Your task to perform on an android device: turn off improve location accuracy Image 0: 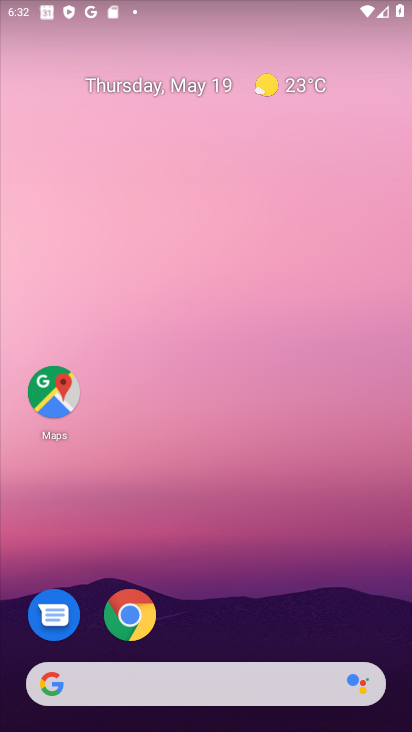
Step 0: drag from (354, 614) to (316, 5)
Your task to perform on an android device: turn off improve location accuracy Image 1: 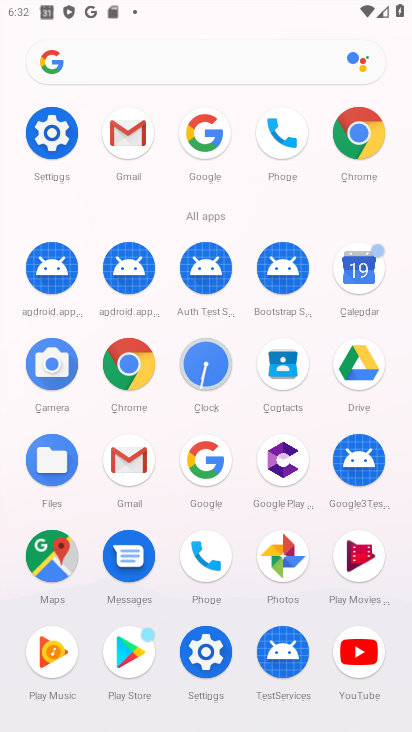
Step 1: click (65, 156)
Your task to perform on an android device: turn off improve location accuracy Image 2: 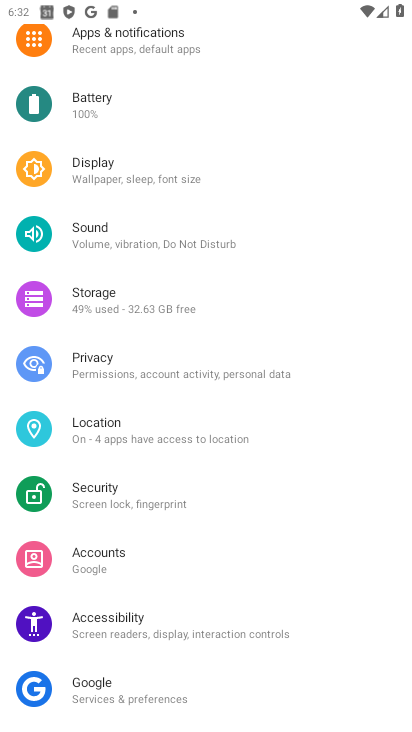
Step 2: click (154, 420)
Your task to perform on an android device: turn off improve location accuracy Image 3: 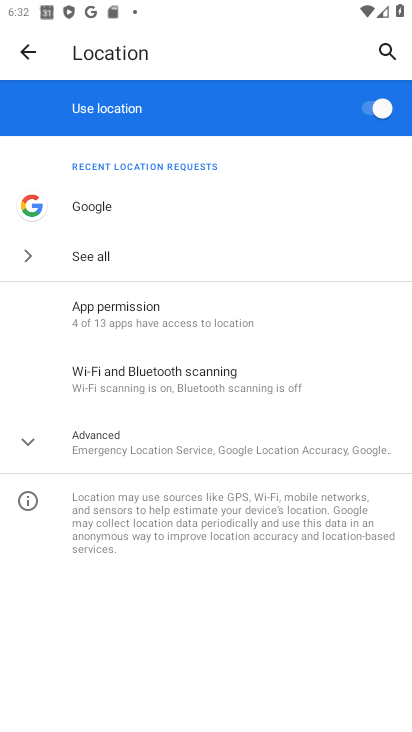
Step 3: click (144, 431)
Your task to perform on an android device: turn off improve location accuracy Image 4: 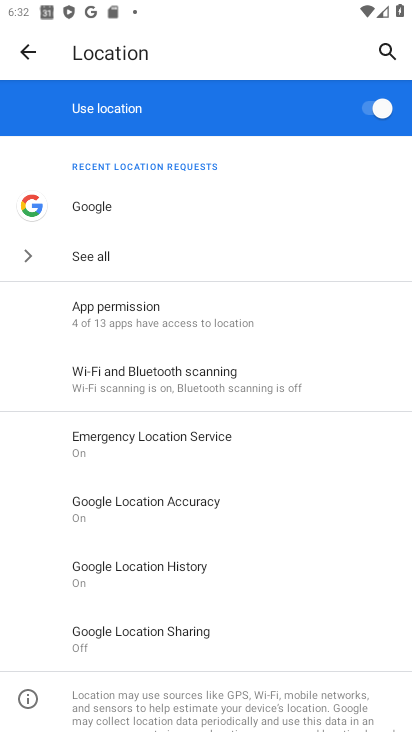
Step 4: click (140, 500)
Your task to perform on an android device: turn off improve location accuracy Image 5: 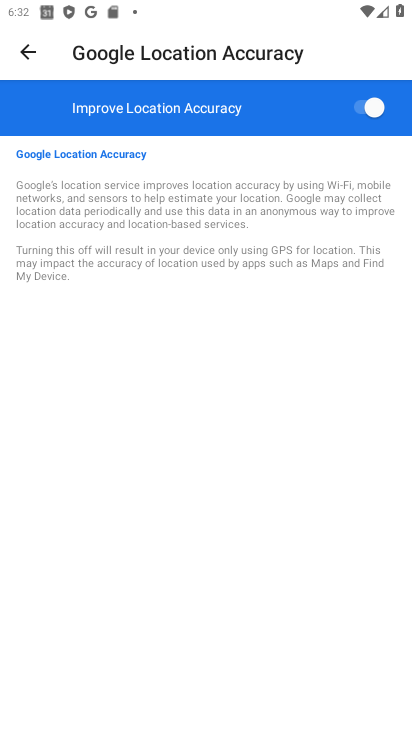
Step 5: click (368, 106)
Your task to perform on an android device: turn off improve location accuracy Image 6: 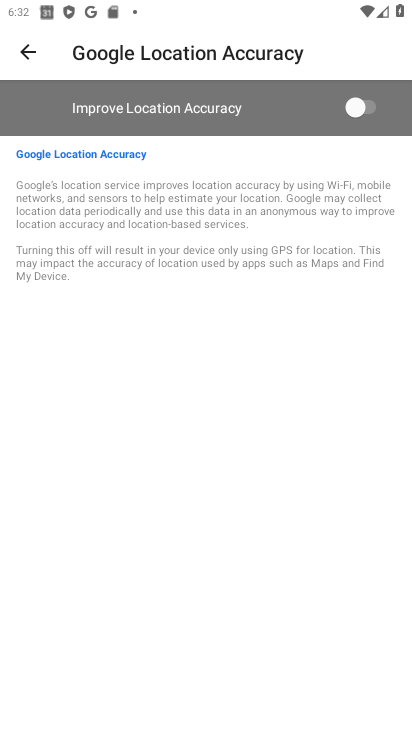
Step 6: task complete